Your task to perform on an android device: Open Yahoo.com Image 0: 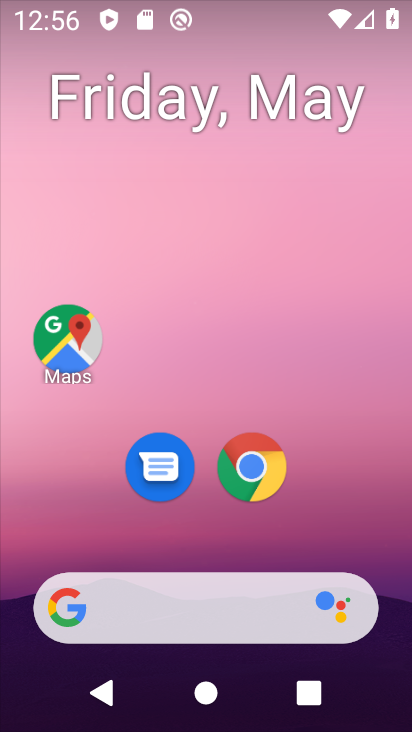
Step 0: drag from (239, 642) to (306, 101)
Your task to perform on an android device: Open Yahoo.com Image 1: 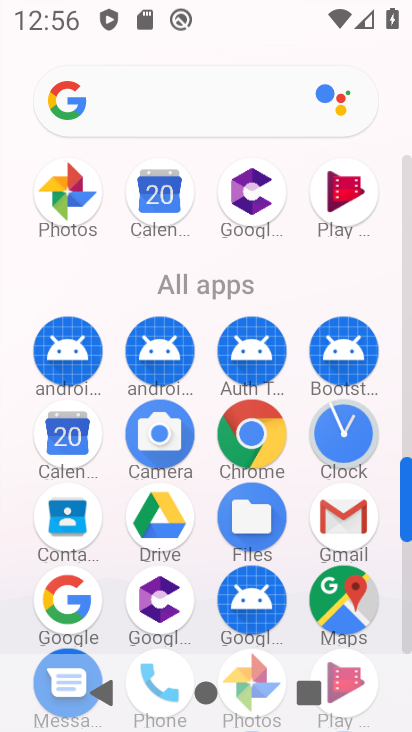
Step 1: click (272, 430)
Your task to perform on an android device: Open Yahoo.com Image 2: 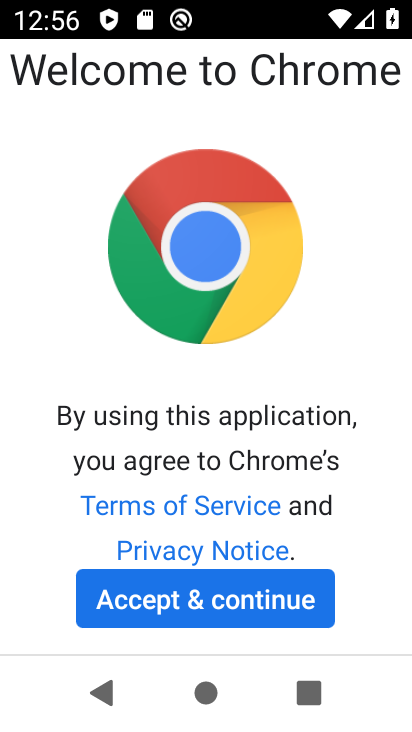
Step 2: click (211, 598)
Your task to perform on an android device: Open Yahoo.com Image 3: 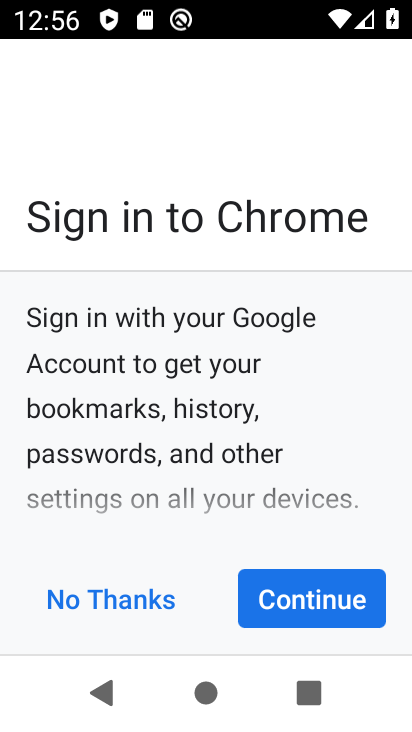
Step 3: click (308, 616)
Your task to perform on an android device: Open Yahoo.com Image 4: 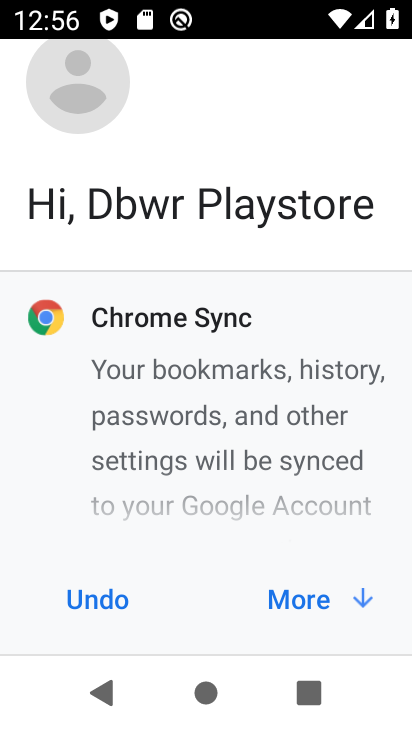
Step 4: click (354, 583)
Your task to perform on an android device: Open Yahoo.com Image 5: 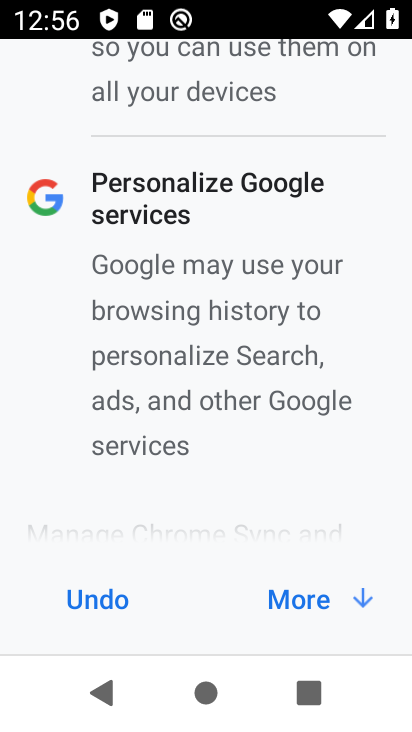
Step 5: click (345, 586)
Your task to perform on an android device: Open Yahoo.com Image 6: 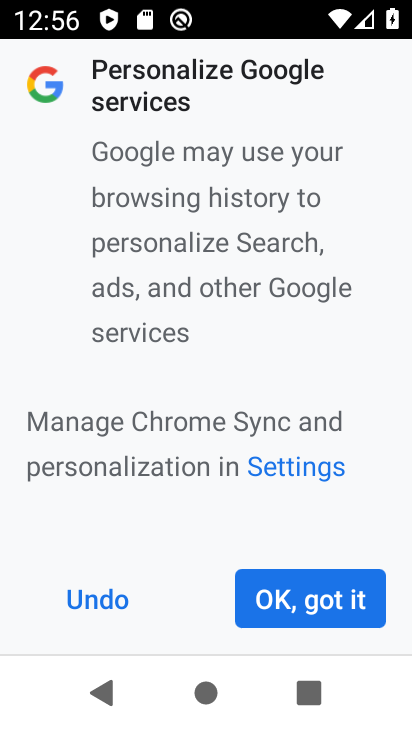
Step 6: click (340, 603)
Your task to perform on an android device: Open Yahoo.com Image 7: 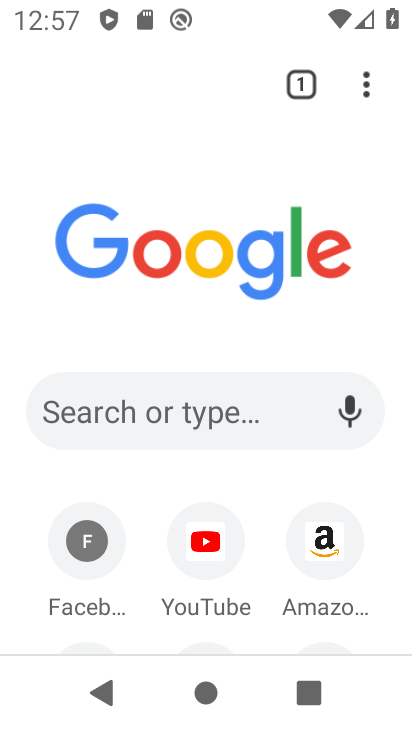
Step 7: drag from (262, 488) to (197, 183)
Your task to perform on an android device: Open Yahoo.com Image 8: 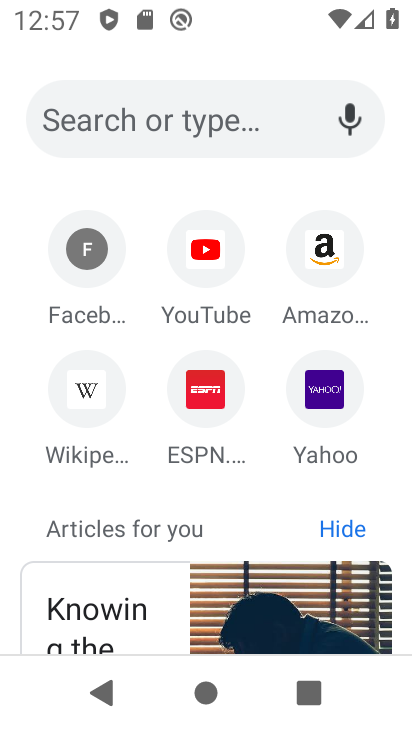
Step 8: click (330, 397)
Your task to perform on an android device: Open Yahoo.com Image 9: 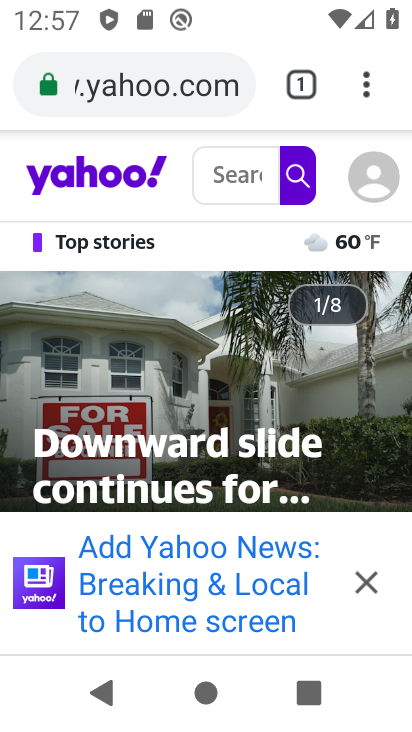
Step 9: click (370, 586)
Your task to perform on an android device: Open Yahoo.com Image 10: 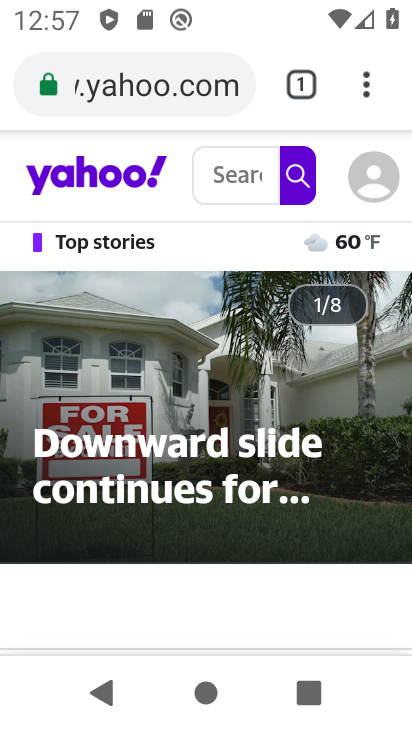
Step 10: task complete